Your task to perform on an android device: open device folders in google photos Image 0: 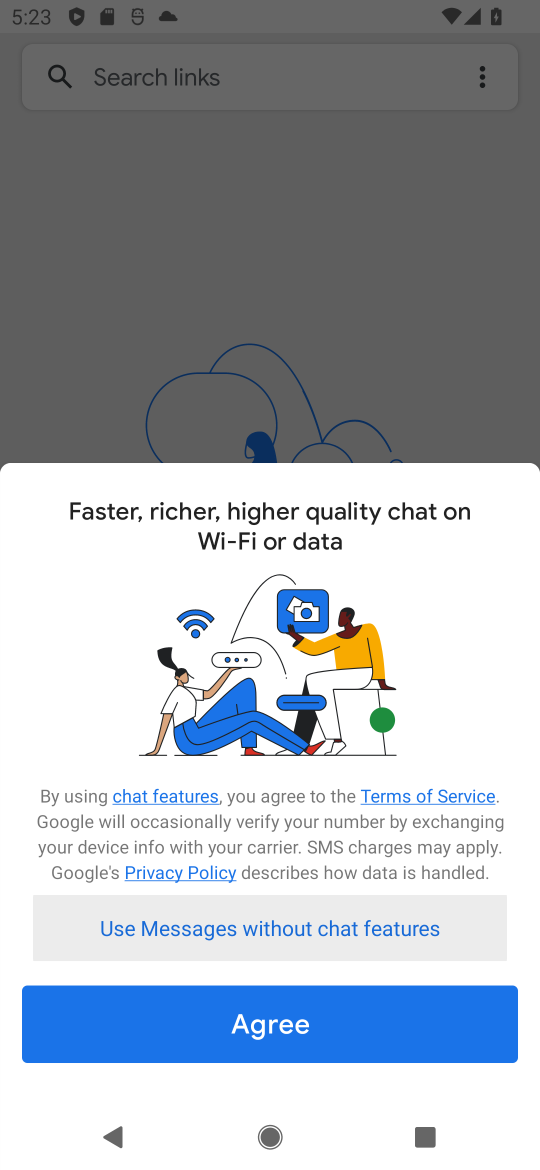
Step 0: press home button
Your task to perform on an android device: open device folders in google photos Image 1: 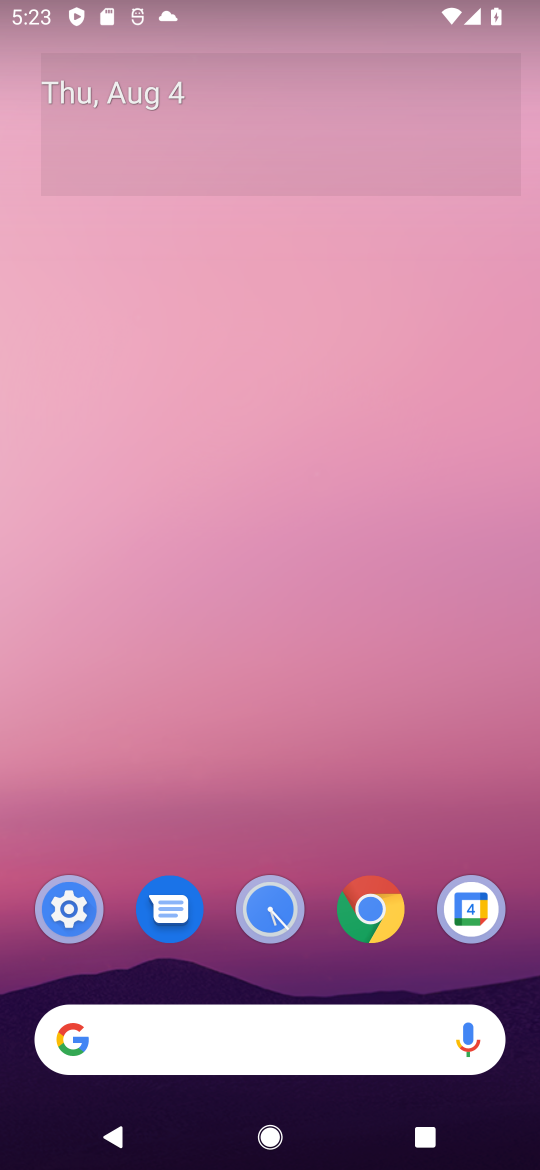
Step 1: drag from (207, 1048) to (344, 58)
Your task to perform on an android device: open device folders in google photos Image 2: 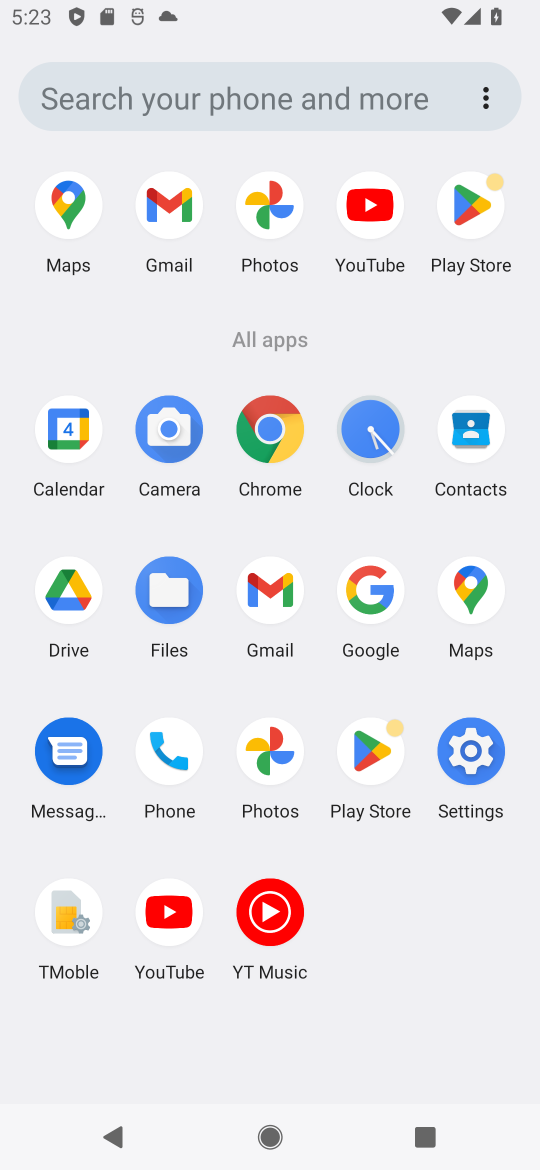
Step 2: click (268, 752)
Your task to perform on an android device: open device folders in google photos Image 3: 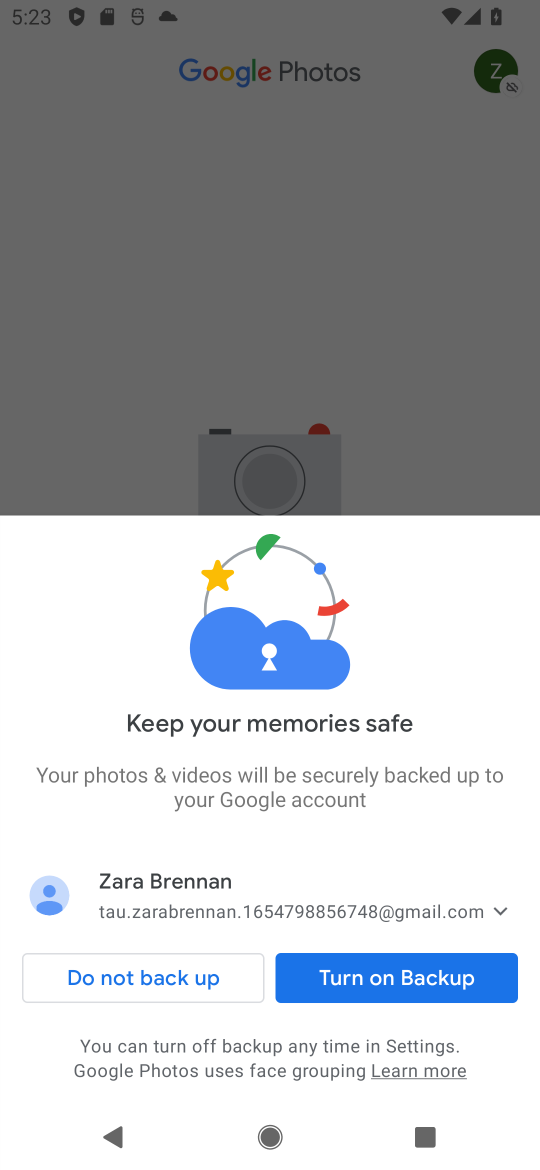
Step 3: click (351, 981)
Your task to perform on an android device: open device folders in google photos Image 4: 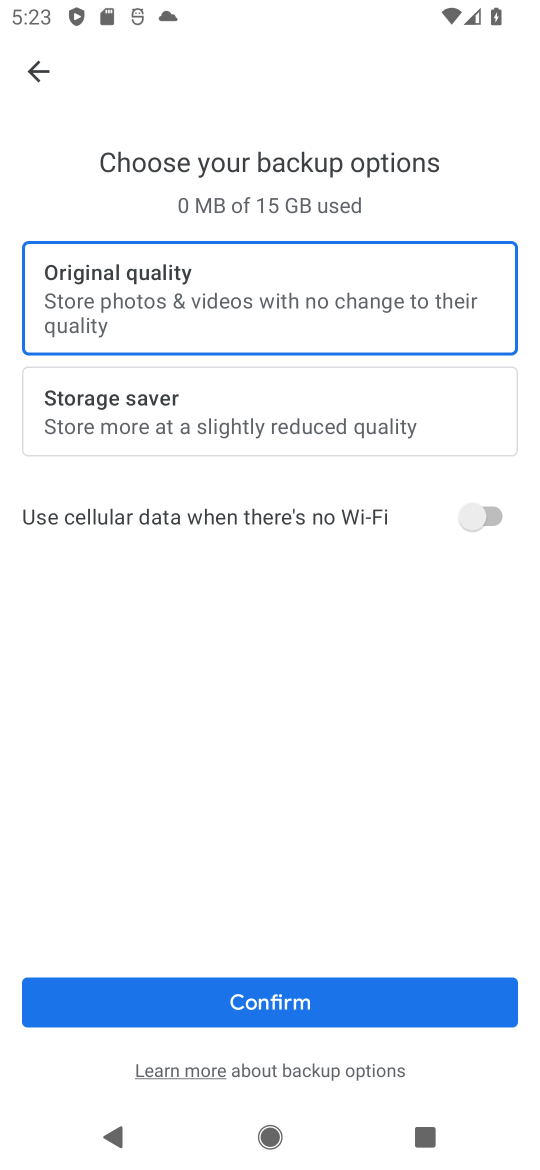
Step 4: click (356, 1017)
Your task to perform on an android device: open device folders in google photos Image 5: 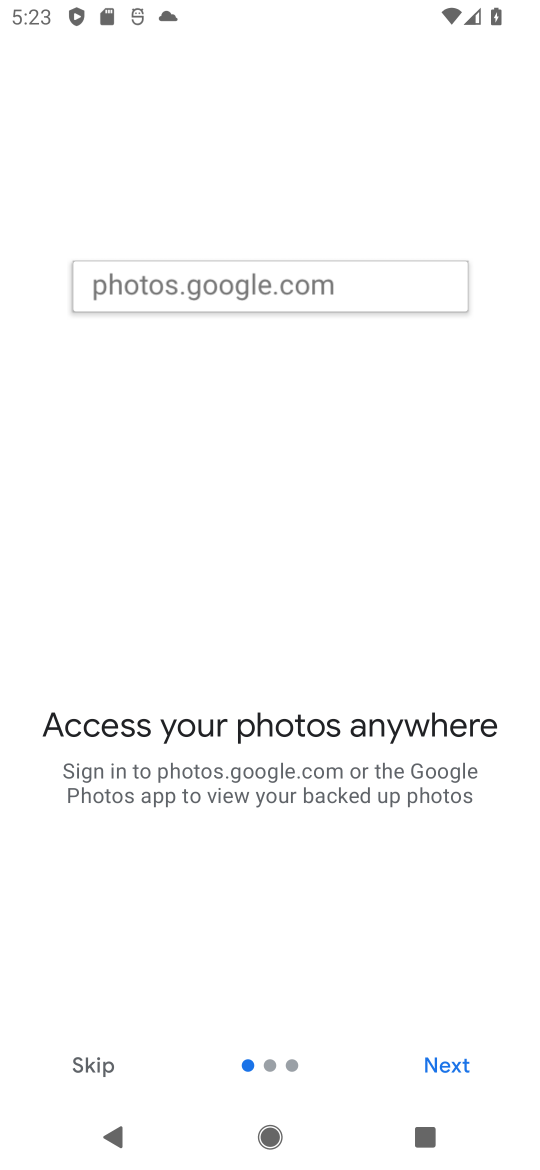
Step 5: click (88, 1061)
Your task to perform on an android device: open device folders in google photos Image 6: 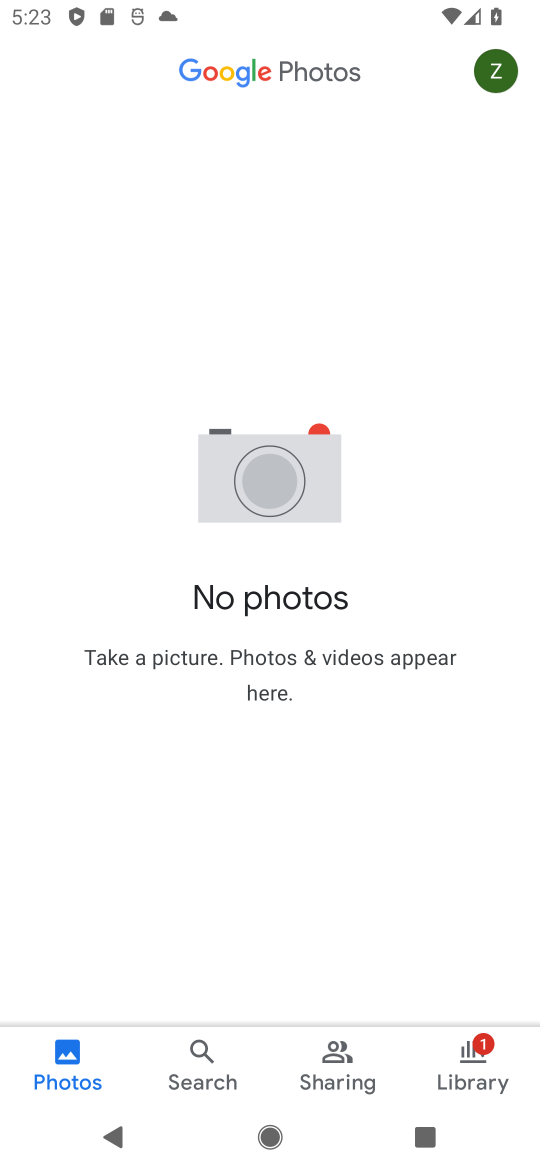
Step 6: click (492, 1053)
Your task to perform on an android device: open device folders in google photos Image 7: 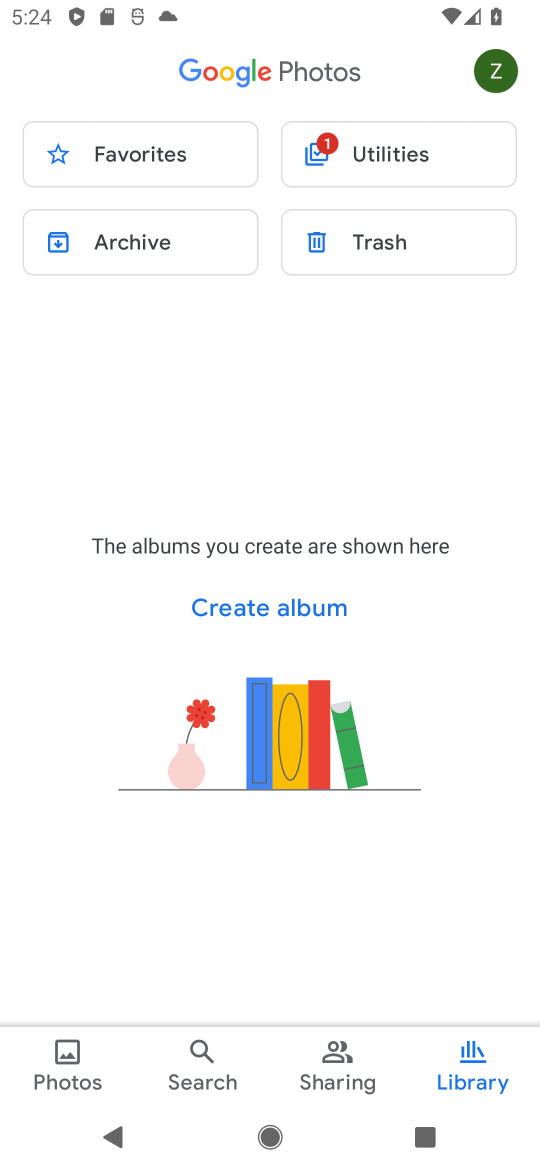
Step 7: click (498, 88)
Your task to perform on an android device: open device folders in google photos Image 8: 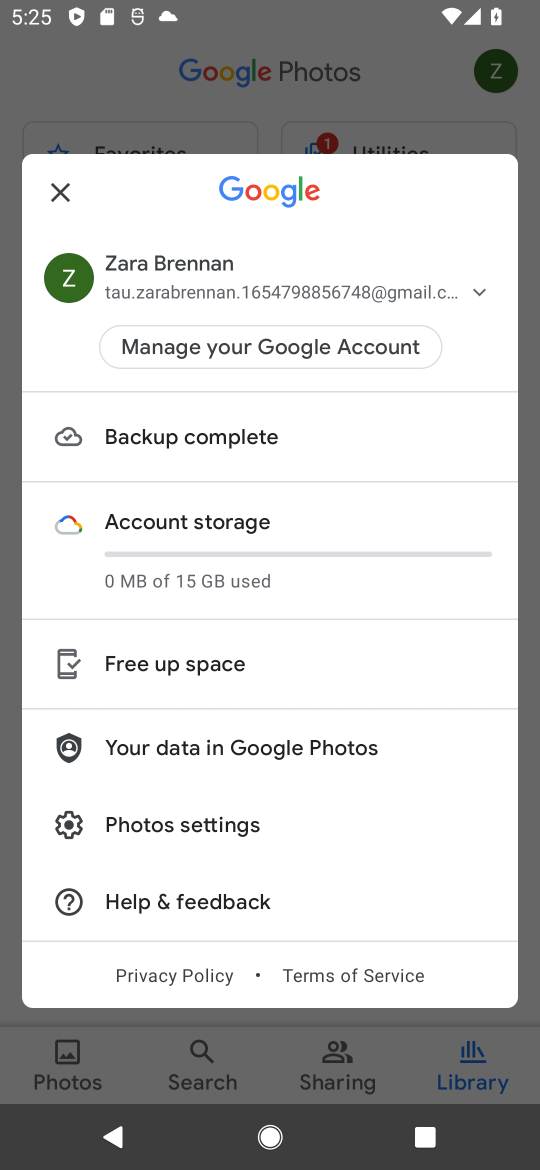
Step 8: press back button
Your task to perform on an android device: open device folders in google photos Image 9: 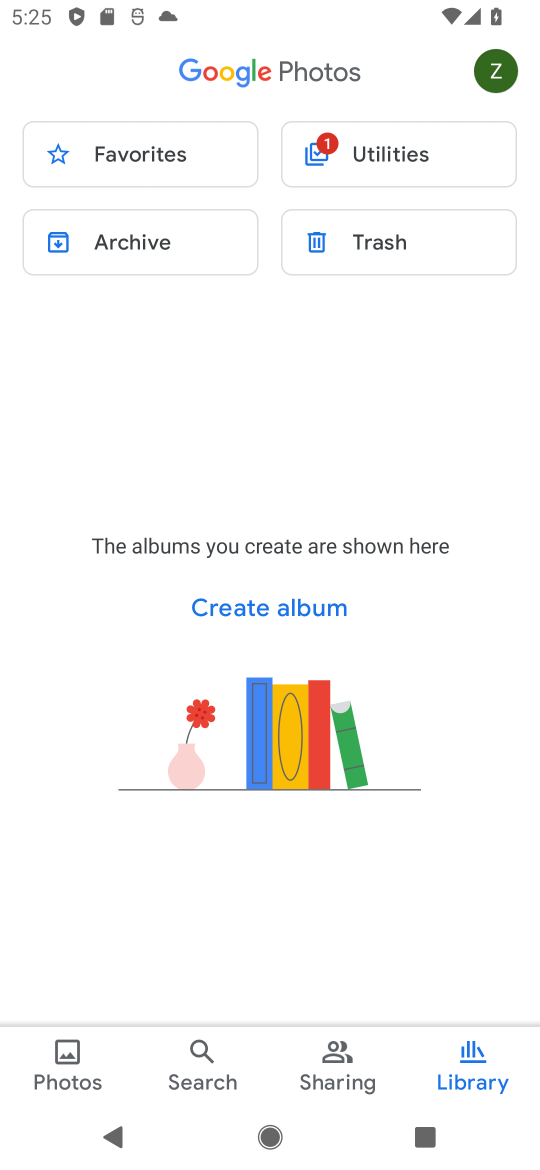
Step 9: click (335, 1069)
Your task to perform on an android device: open device folders in google photos Image 10: 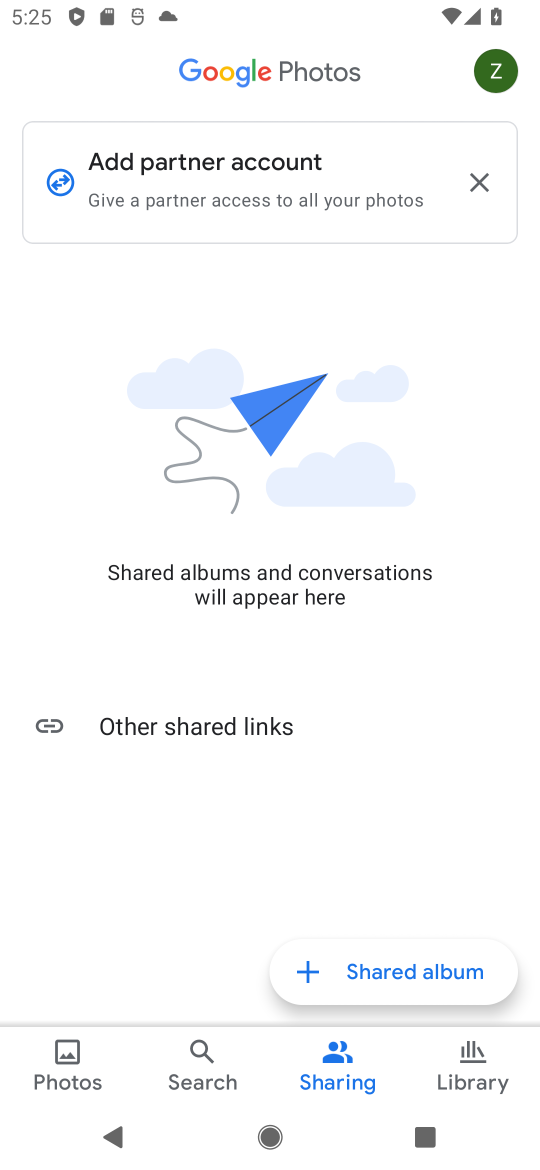
Step 10: click (235, 725)
Your task to perform on an android device: open device folders in google photos Image 11: 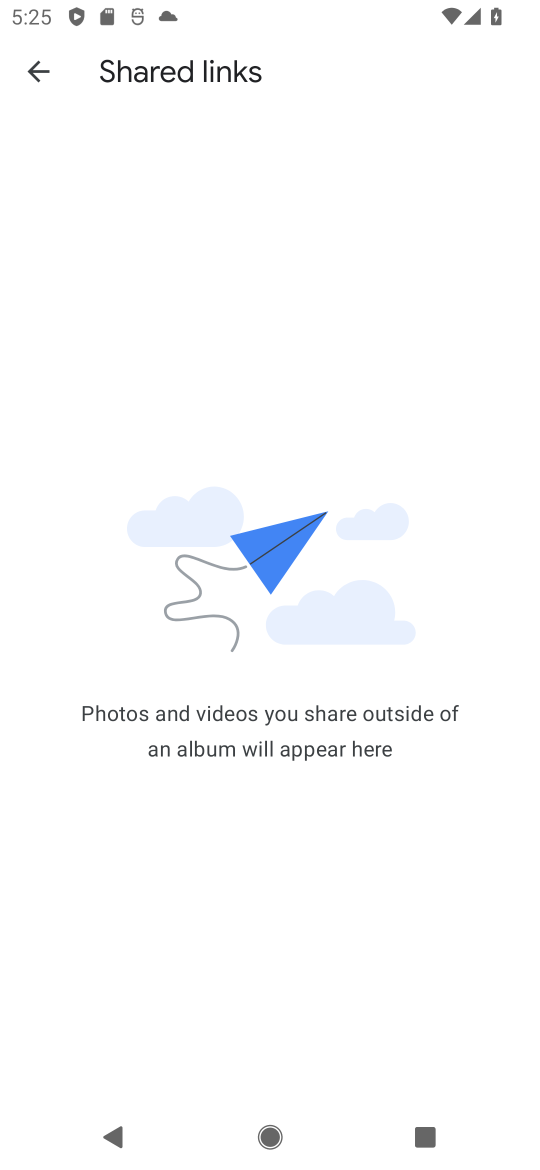
Step 11: task complete